Your task to perform on an android device: set default search engine in the chrome app Image 0: 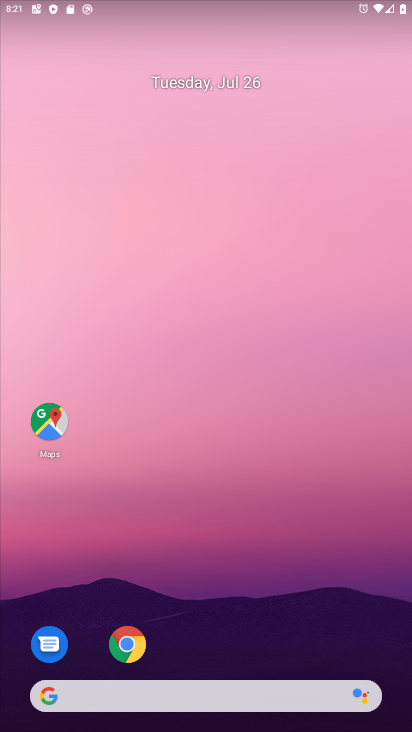
Step 0: drag from (233, 641) to (211, 204)
Your task to perform on an android device: set default search engine in the chrome app Image 1: 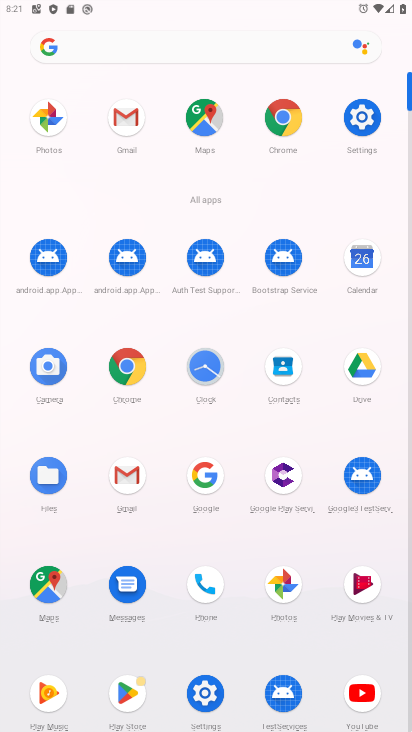
Step 1: click (137, 369)
Your task to perform on an android device: set default search engine in the chrome app Image 2: 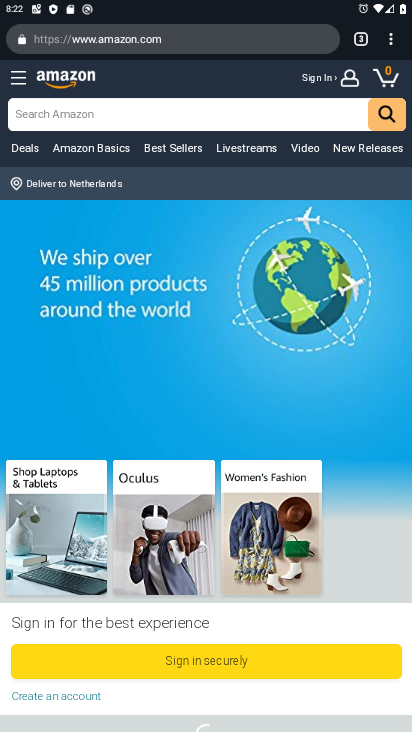
Step 2: click (392, 38)
Your task to perform on an android device: set default search engine in the chrome app Image 3: 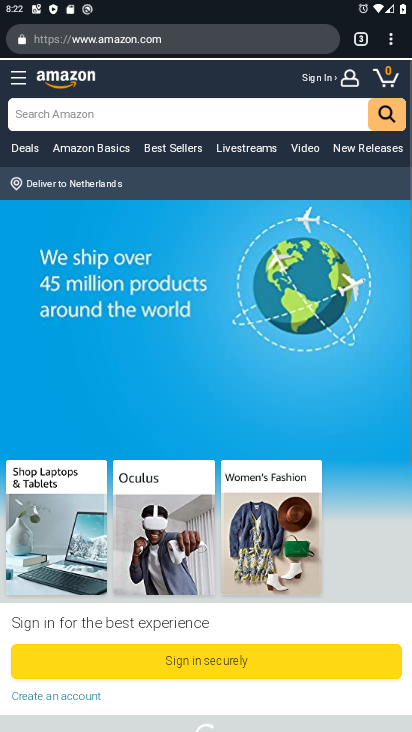
Step 3: click (388, 43)
Your task to perform on an android device: set default search engine in the chrome app Image 4: 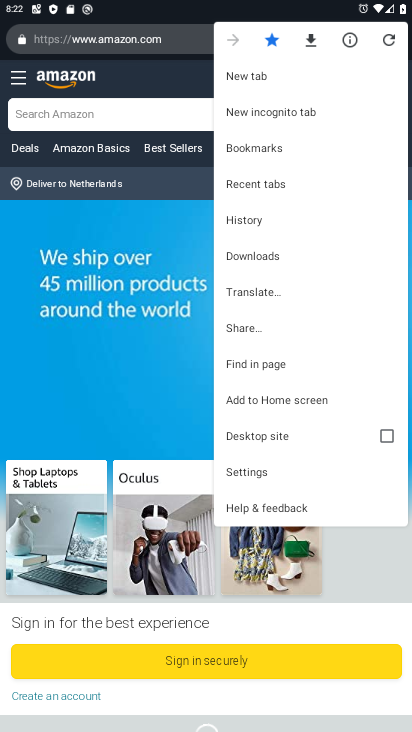
Step 4: click (250, 470)
Your task to perform on an android device: set default search engine in the chrome app Image 5: 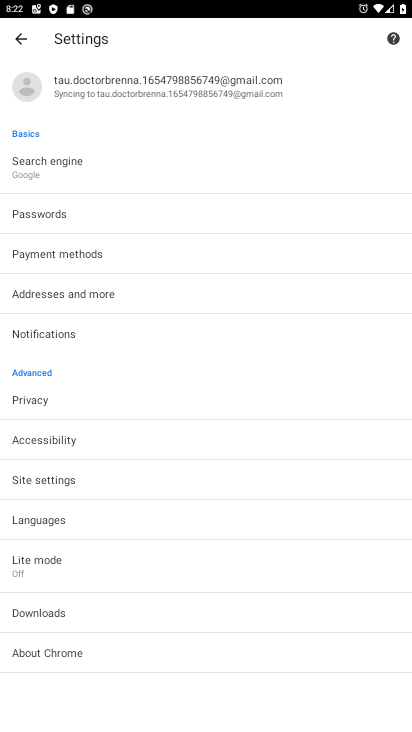
Step 5: drag from (101, 628) to (128, 272)
Your task to perform on an android device: set default search engine in the chrome app Image 6: 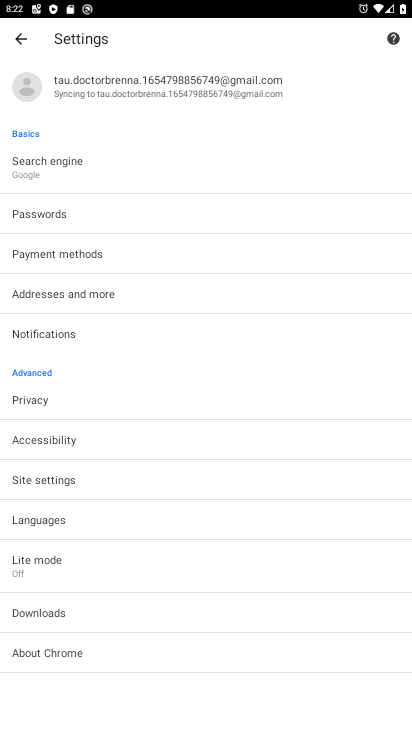
Step 6: click (93, 166)
Your task to perform on an android device: set default search engine in the chrome app Image 7: 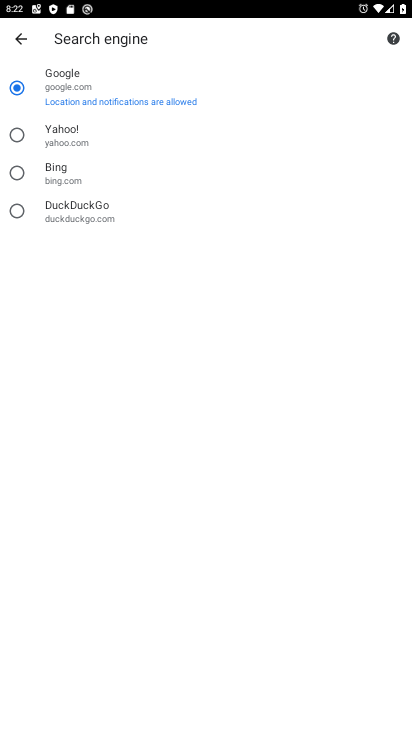
Step 7: click (61, 176)
Your task to perform on an android device: set default search engine in the chrome app Image 8: 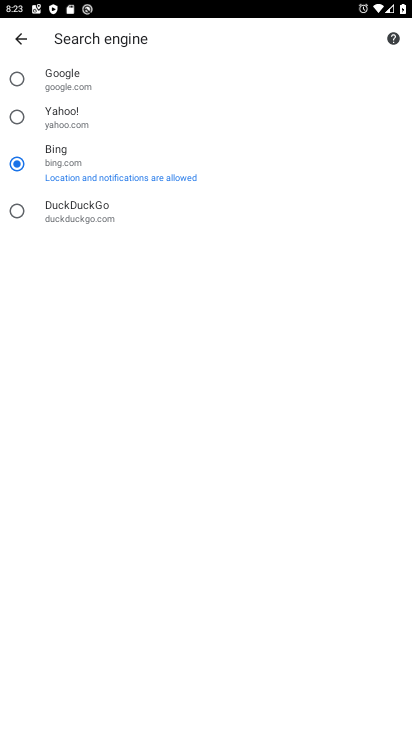
Step 8: click (24, 121)
Your task to perform on an android device: set default search engine in the chrome app Image 9: 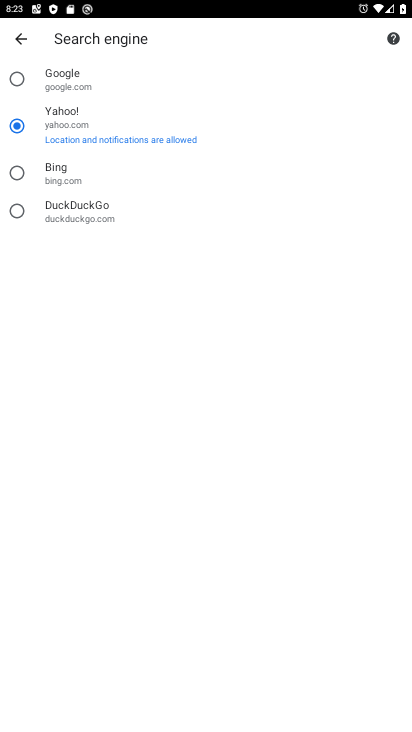
Step 9: task complete